Your task to perform on an android device: turn pop-ups off in chrome Image 0: 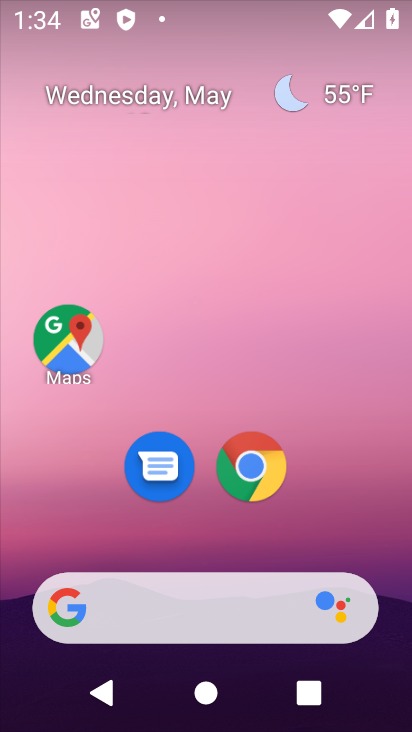
Step 0: click (248, 470)
Your task to perform on an android device: turn pop-ups off in chrome Image 1: 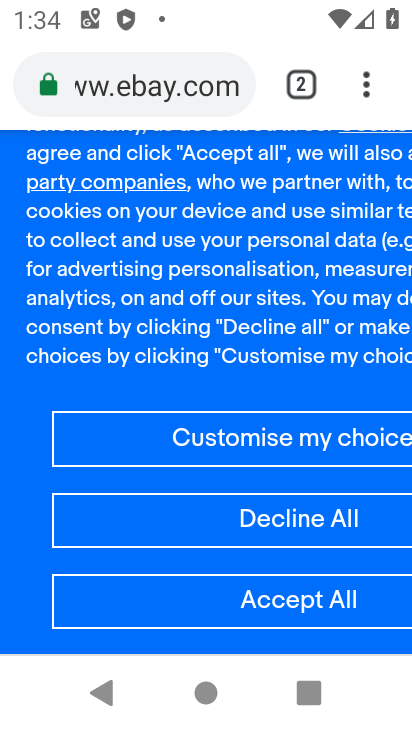
Step 1: click (359, 88)
Your task to perform on an android device: turn pop-ups off in chrome Image 2: 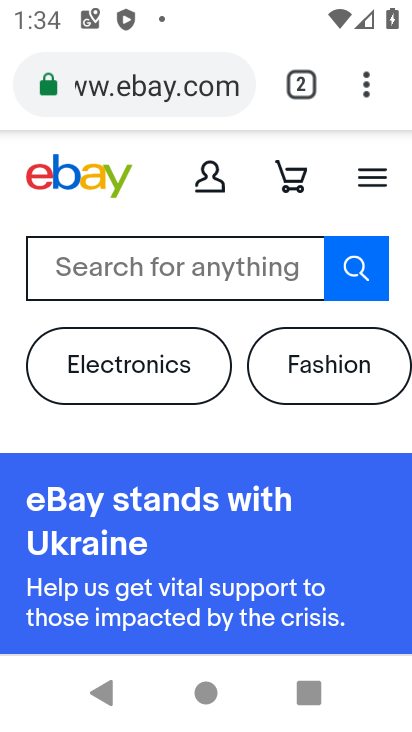
Step 2: click (359, 88)
Your task to perform on an android device: turn pop-ups off in chrome Image 3: 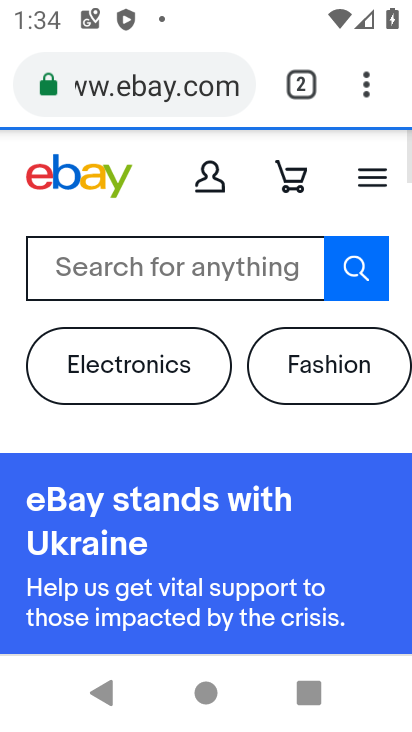
Step 3: click (378, 100)
Your task to perform on an android device: turn pop-ups off in chrome Image 4: 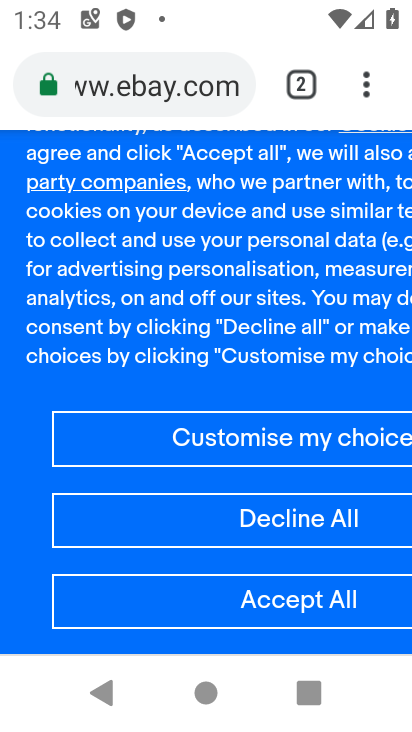
Step 4: click (383, 105)
Your task to perform on an android device: turn pop-ups off in chrome Image 5: 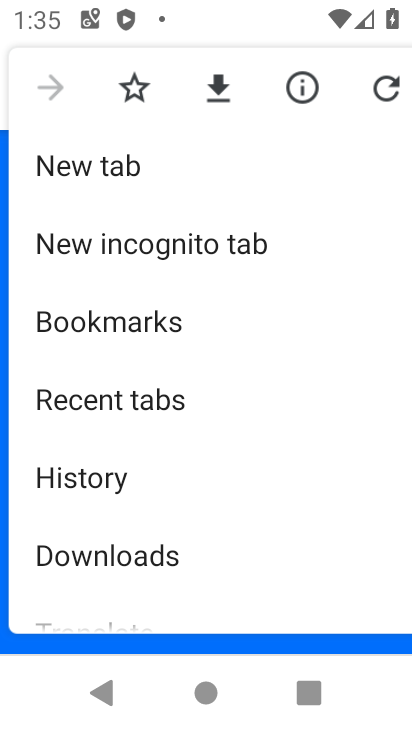
Step 5: drag from (209, 553) to (209, 111)
Your task to perform on an android device: turn pop-ups off in chrome Image 6: 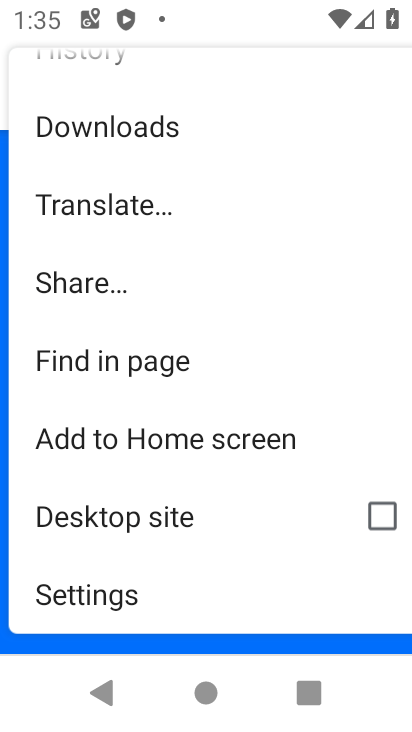
Step 6: click (121, 573)
Your task to perform on an android device: turn pop-ups off in chrome Image 7: 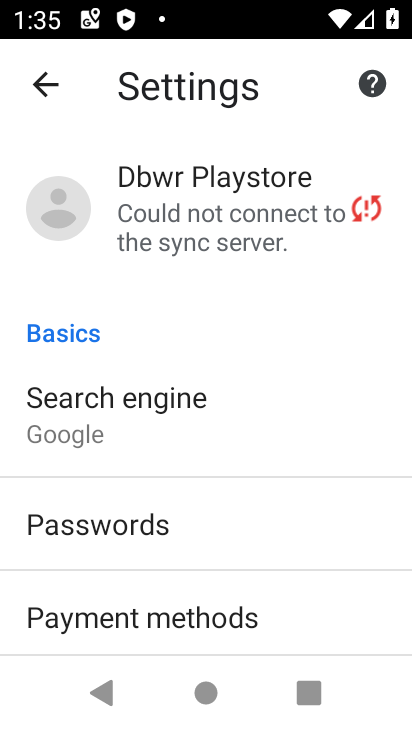
Step 7: drag from (172, 590) to (227, 323)
Your task to perform on an android device: turn pop-ups off in chrome Image 8: 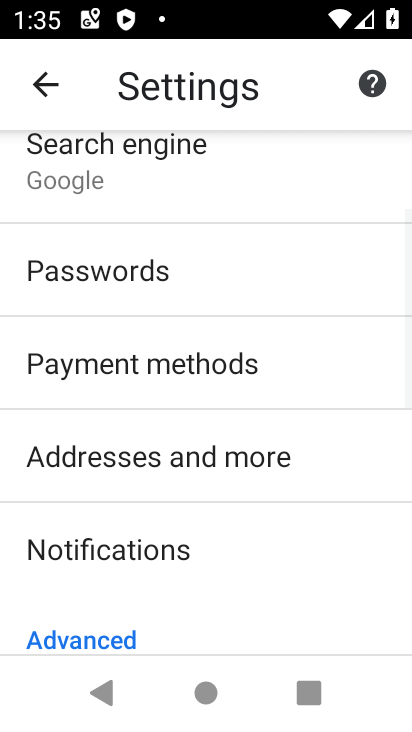
Step 8: drag from (165, 612) to (185, 298)
Your task to perform on an android device: turn pop-ups off in chrome Image 9: 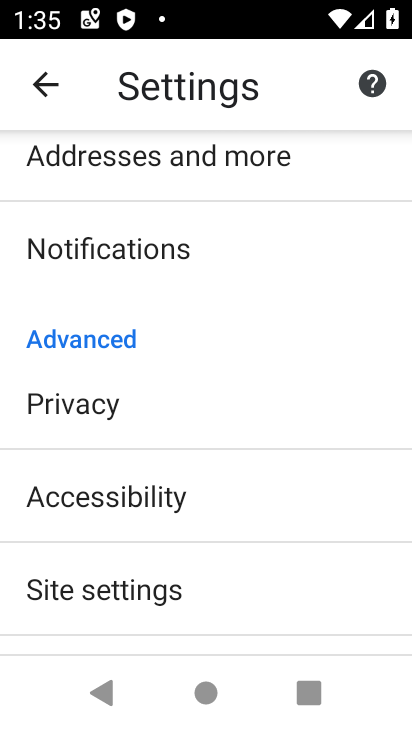
Step 9: click (206, 592)
Your task to perform on an android device: turn pop-ups off in chrome Image 10: 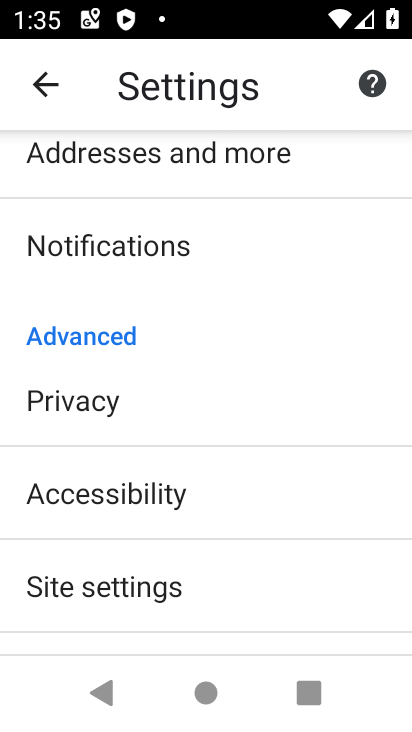
Step 10: drag from (226, 633) to (242, 481)
Your task to perform on an android device: turn pop-ups off in chrome Image 11: 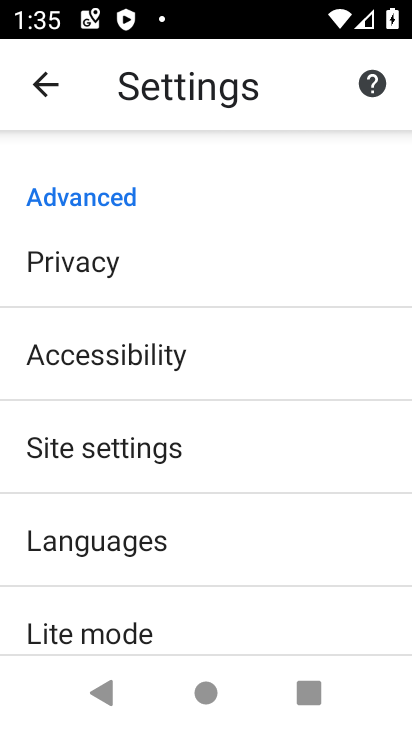
Step 11: click (228, 462)
Your task to perform on an android device: turn pop-ups off in chrome Image 12: 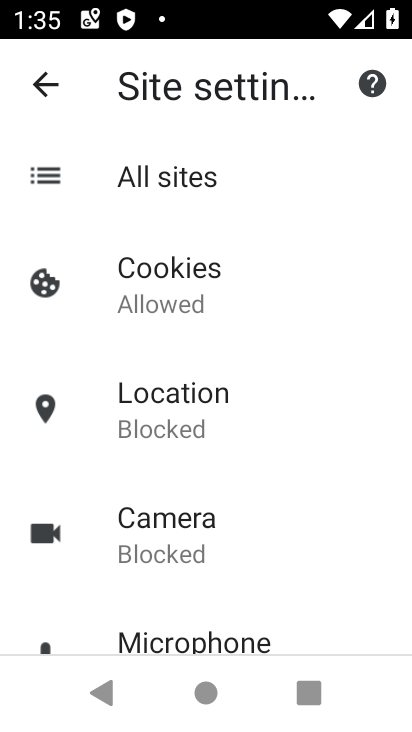
Step 12: drag from (225, 644) to (225, 286)
Your task to perform on an android device: turn pop-ups off in chrome Image 13: 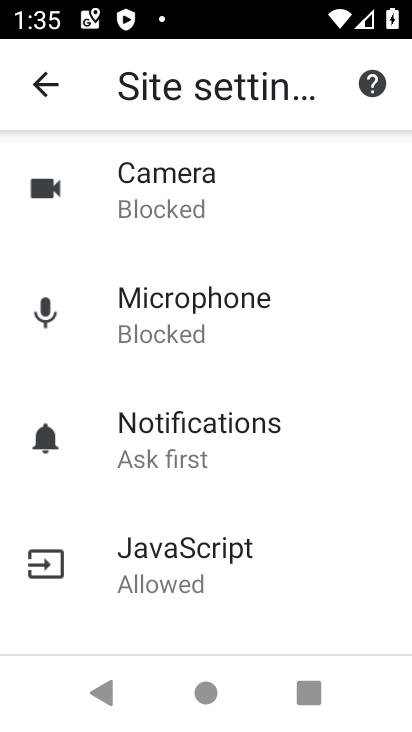
Step 13: drag from (273, 578) to (272, 254)
Your task to perform on an android device: turn pop-ups off in chrome Image 14: 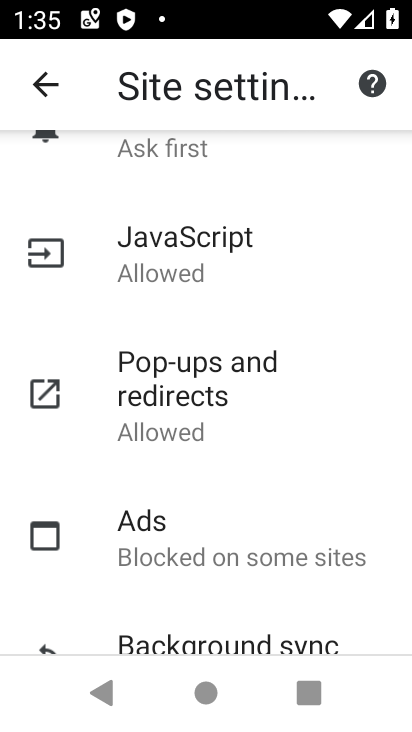
Step 14: click (221, 416)
Your task to perform on an android device: turn pop-ups off in chrome Image 15: 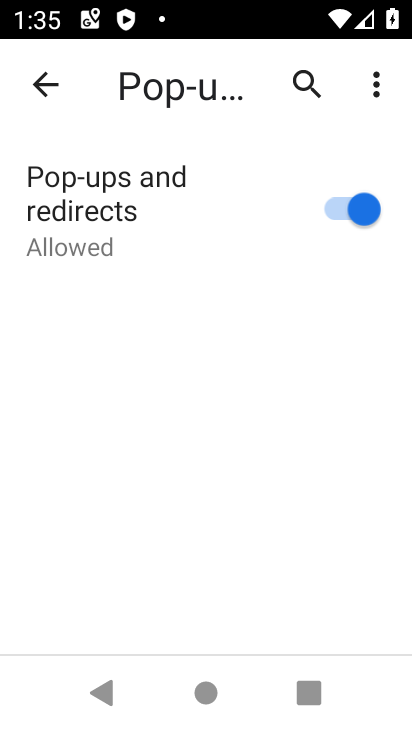
Step 15: click (355, 199)
Your task to perform on an android device: turn pop-ups off in chrome Image 16: 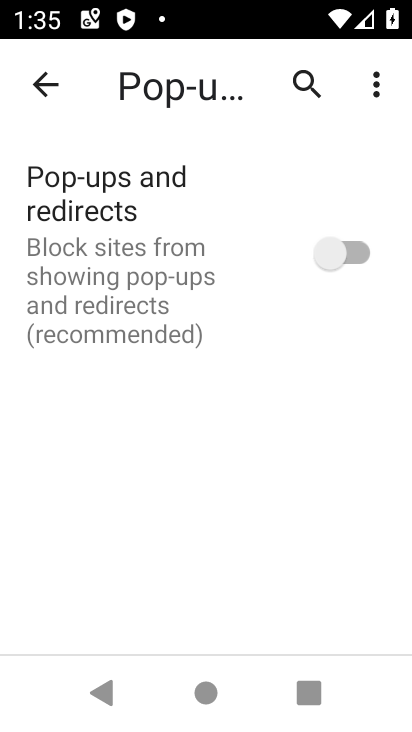
Step 16: task complete